Your task to perform on an android device: turn off improve location accuracy Image 0: 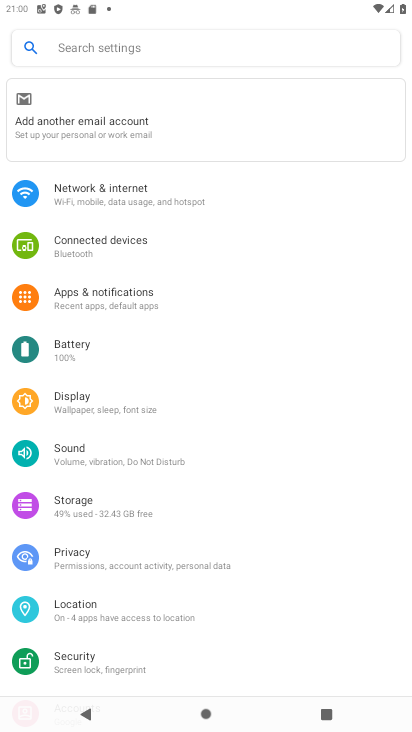
Step 0: press home button
Your task to perform on an android device: turn off improve location accuracy Image 1: 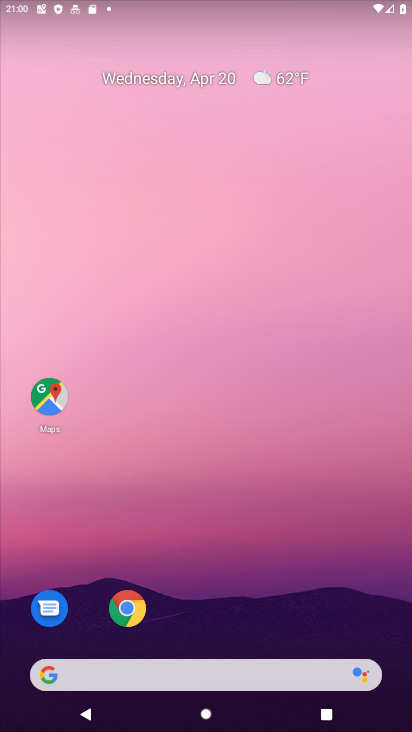
Step 1: drag from (311, 645) to (243, 45)
Your task to perform on an android device: turn off improve location accuracy Image 2: 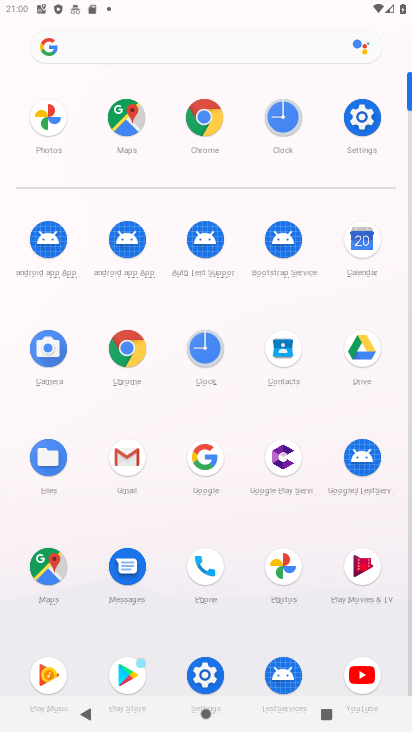
Step 2: click (348, 123)
Your task to perform on an android device: turn off improve location accuracy Image 3: 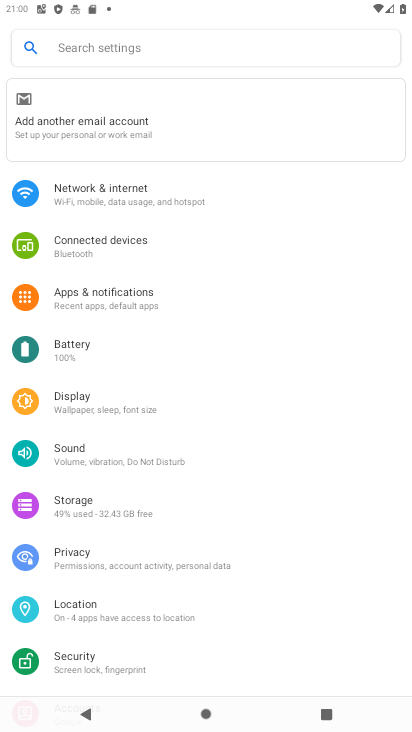
Step 3: drag from (239, 568) to (236, 141)
Your task to perform on an android device: turn off improve location accuracy Image 4: 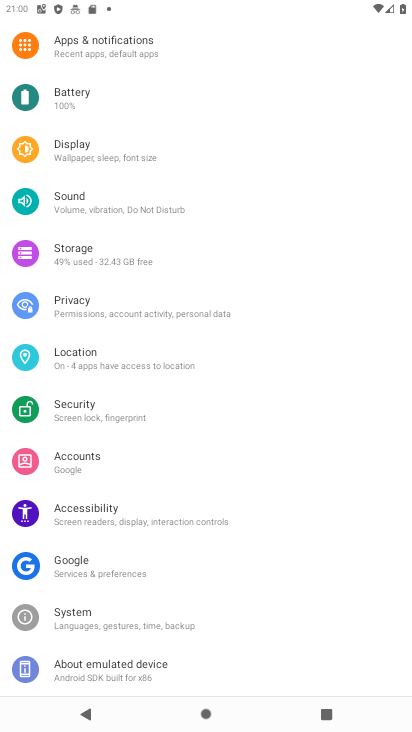
Step 4: click (108, 354)
Your task to perform on an android device: turn off improve location accuracy Image 5: 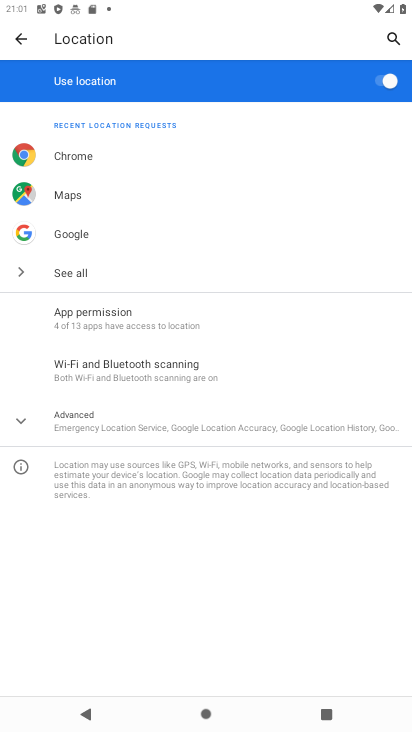
Step 5: click (139, 423)
Your task to perform on an android device: turn off improve location accuracy Image 6: 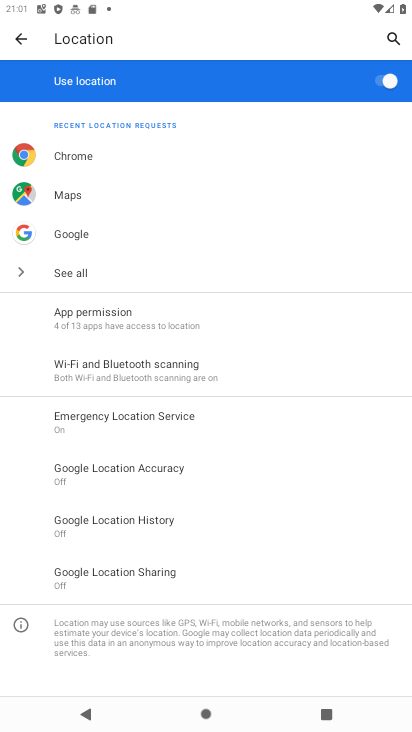
Step 6: click (121, 475)
Your task to perform on an android device: turn off improve location accuracy Image 7: 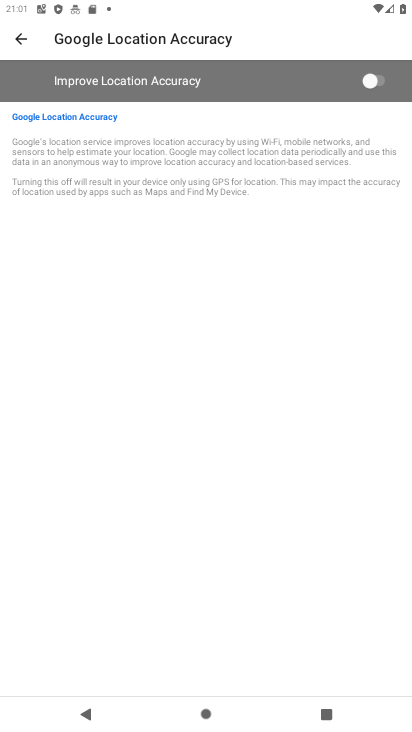
Step 7: click (376, 72)
Your task to perform on an android device: turn off improve location accuracy Image 8: 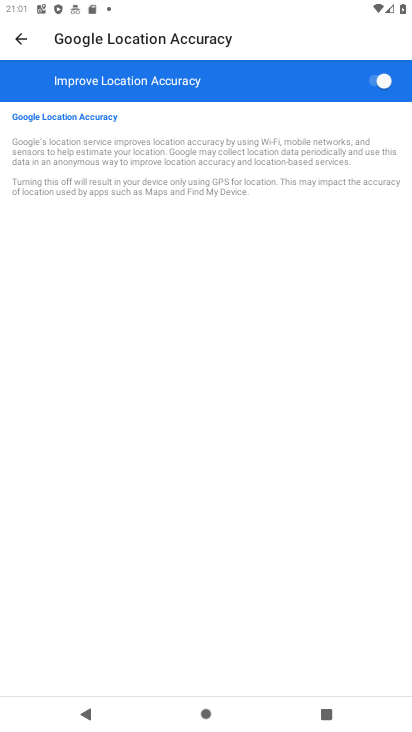
Step 8: task complete